Your task to perform on an android device: Open display settings Image 0: 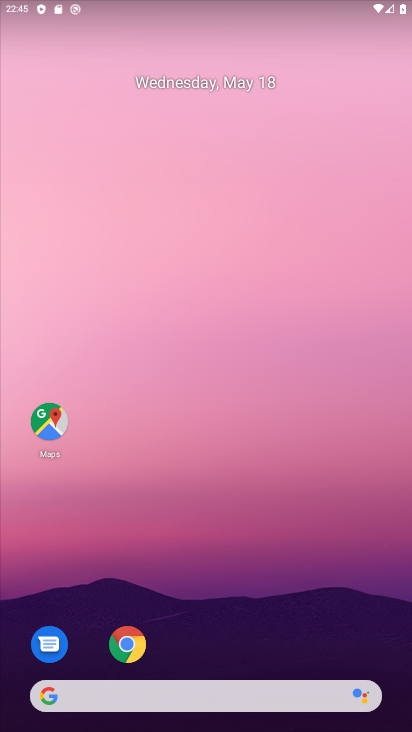
Step 0: drag from (283, 576) to (241, 157)
Your task to perform on an android device: Open display settings Image 1: 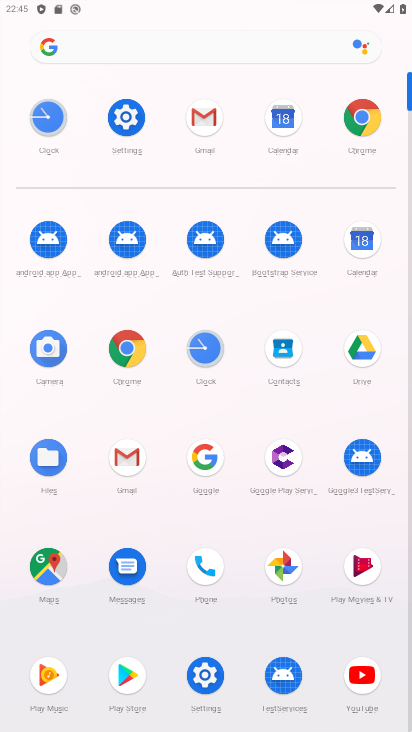
Step 1: click (126, 114)
Your task to perform on an android device: Open display settings Image 2: 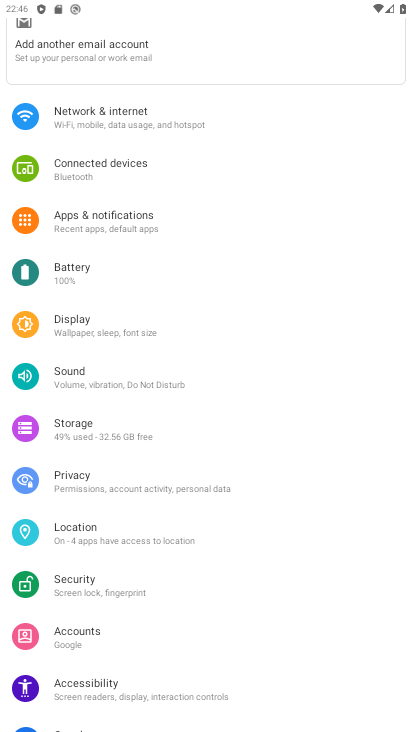
Step 2: drag from (239, 533) to (210, 491)
Your task to perform on an android device: Open display settings Image 3: 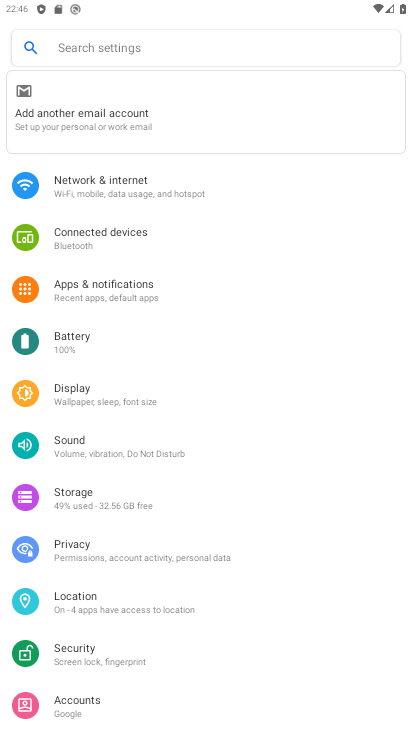
Step 3: click (114, 397)
Your task to perform on an android device: Open display settings Image 4: 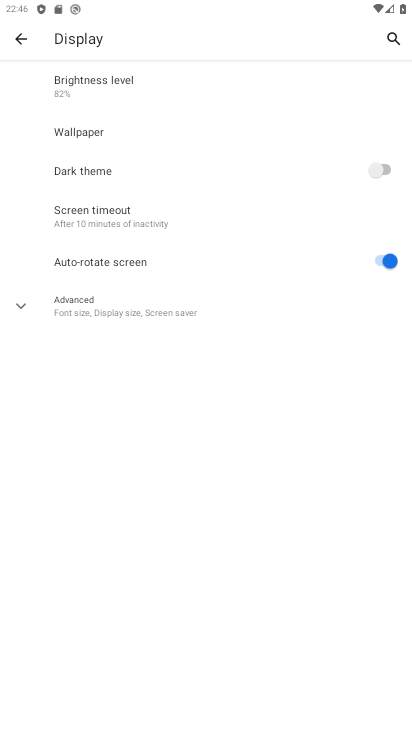
Step 4: task complete